Your task to perform on an android device: change the clock display to show seconds Image 0: 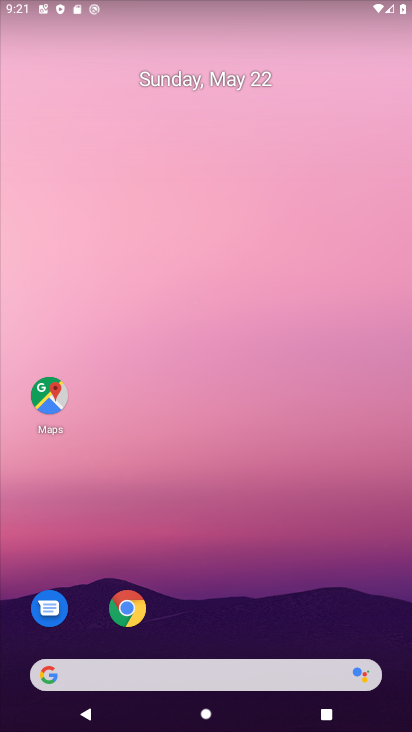
Step 0: drag from (288, 599) to (236, 158)
Your task to perform on an android device: change the clock display to show seconds Image 1: 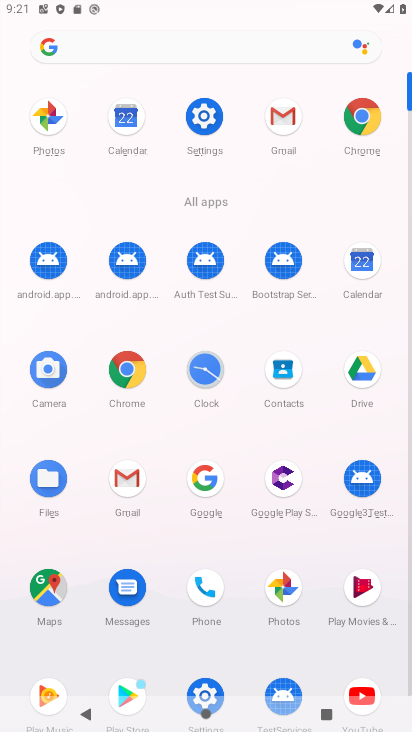
Step 1: click (207, 365)
Your task to perform on an android device: change the clock display to show seconds Image 2: 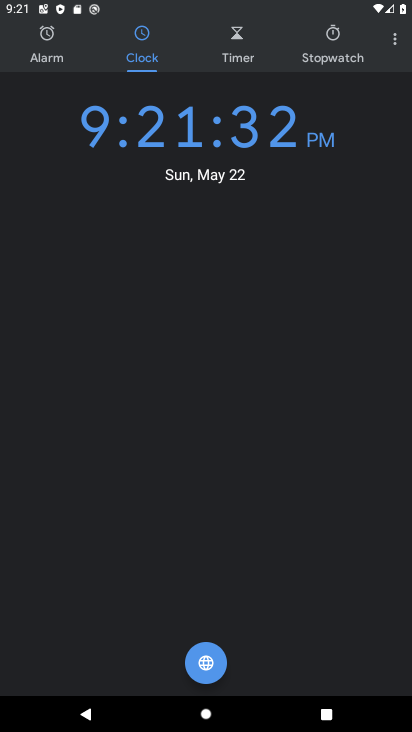
Step 2: click (400, 36)
Your task to perform on an android device: change the clock display to show seconds Image 3: 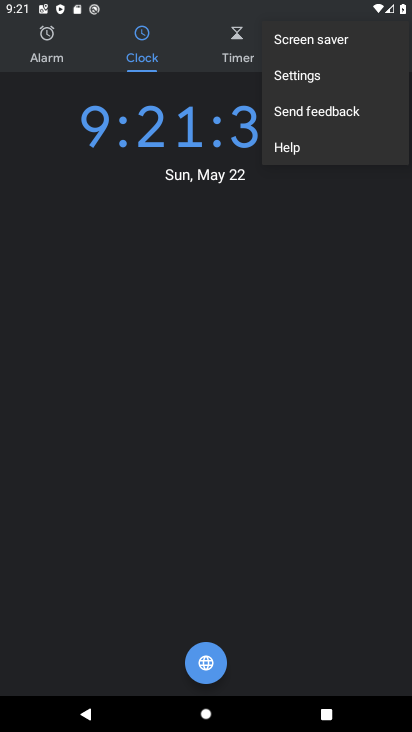
Step 3: click (337, 87)
Your task to perform on an android device: change the clock display to show seconds Image 4: 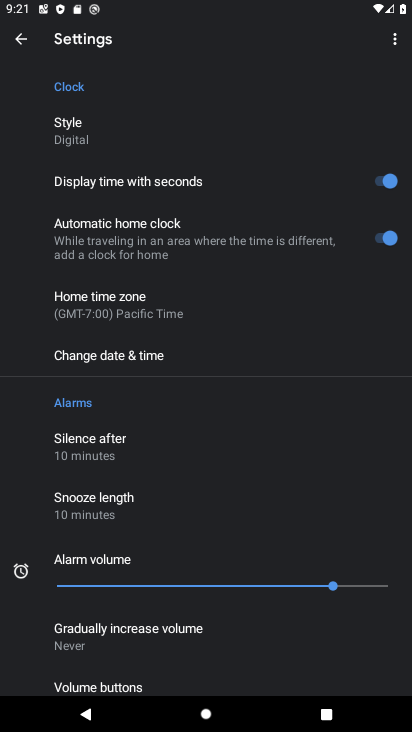
Step 4: task complete